Your task to perform on an android device: Open eBay Image 0: 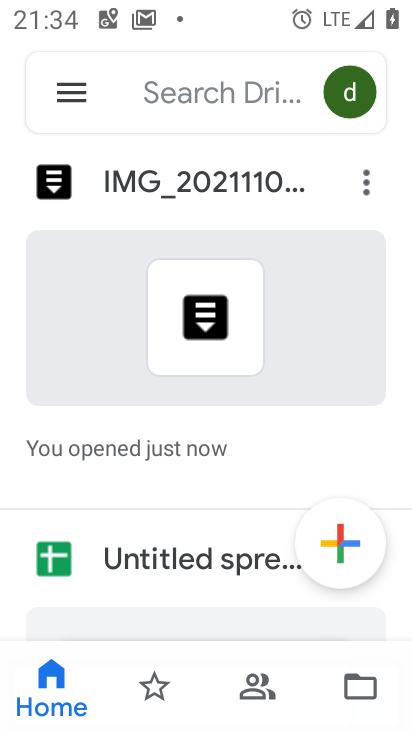
Step 0: press home button
Your task to perform on an android device: Open eBay Image 1: 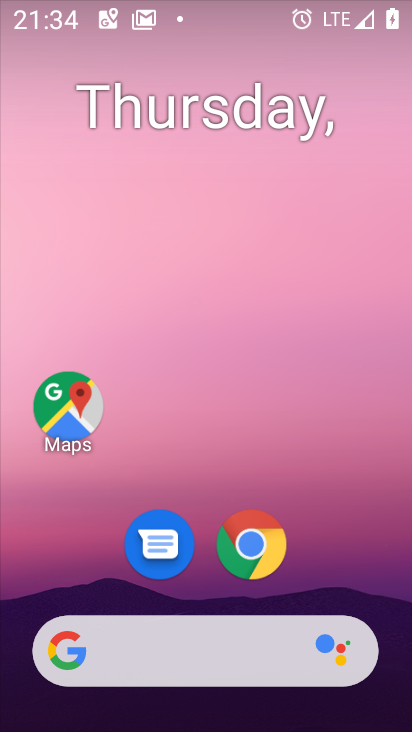
Step 1: click (150, 670)
Your task to perform on an android device: Open eBay Image 2: 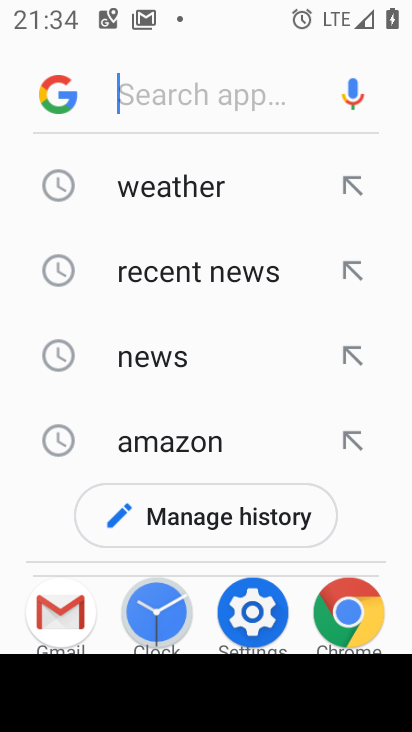
Step 2: type "ebau"
Your task to perform on an android device: Open eBay Image 3: 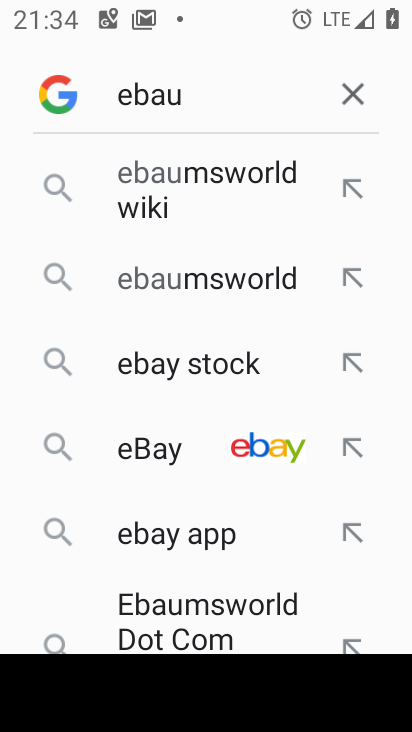
Step 3: click (167, 442)
Your task to perform on an android device: Open eBay Image 4: 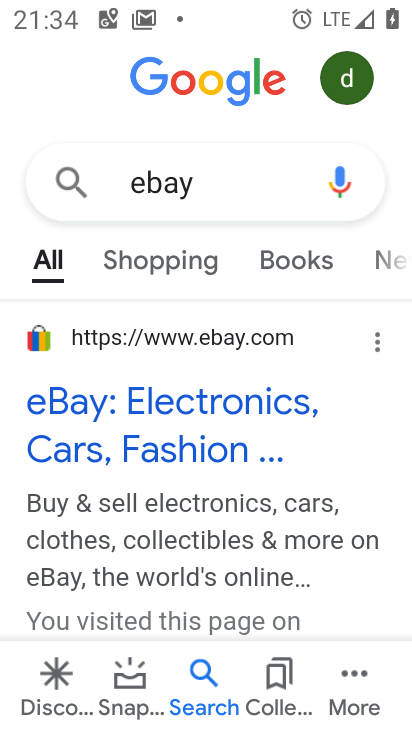
Step 4: click (115, 432)
Your task to perform on an android device: Open eBay Image 5: 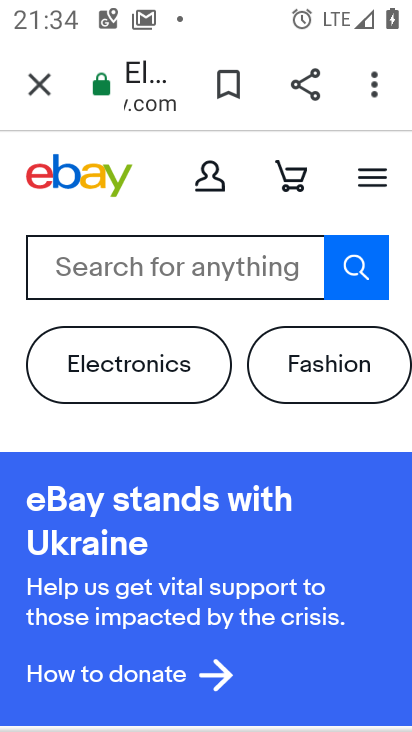
Step 5: task complete